Your task to perform on an android device: Go to privacy settings Image 0: 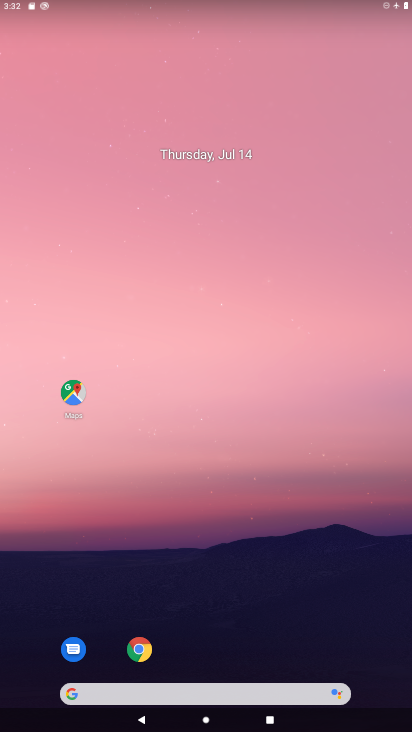
Step 0: drag from (204, 382) to (197, 173)
Your task to perform on an android device: Go to privacy settings Image 1: 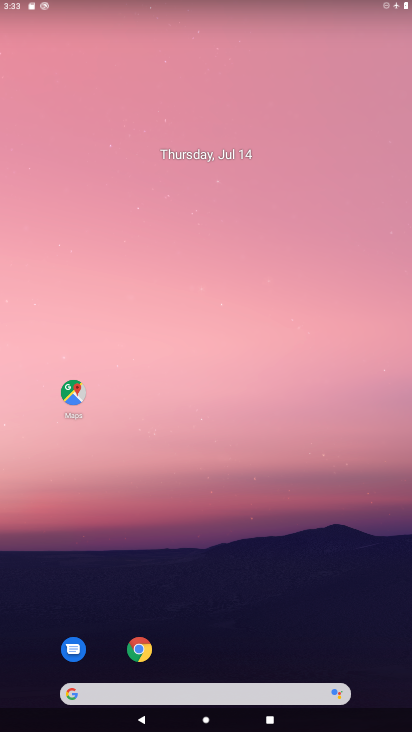
Step 1: drag from (197, 665) to (226, 184)
Your task to perform on an android device: Go to privacy settings Image 2: 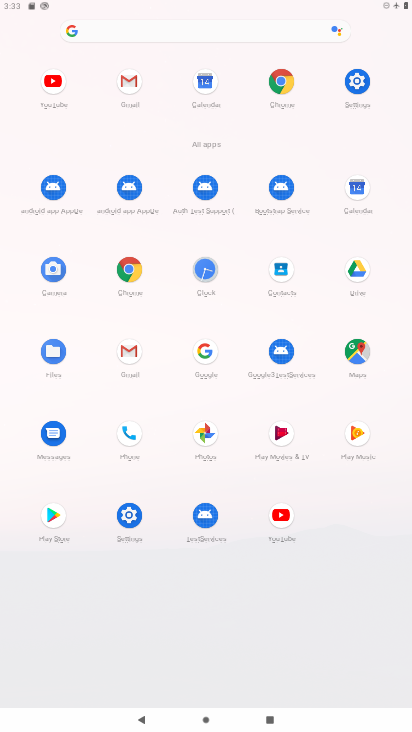
Step 2: click (363, 78)
Your task to perform on an android device: Go to privacy settings Image 3: 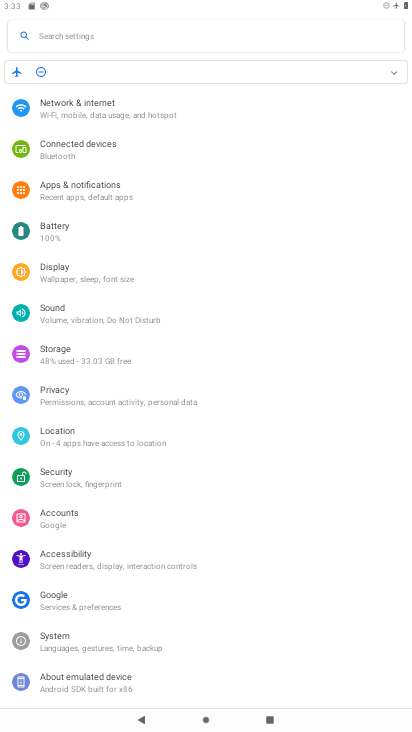
Step 3: click (81, 387)
Your task to perform on an android device: Go to privacy settings Image 4: 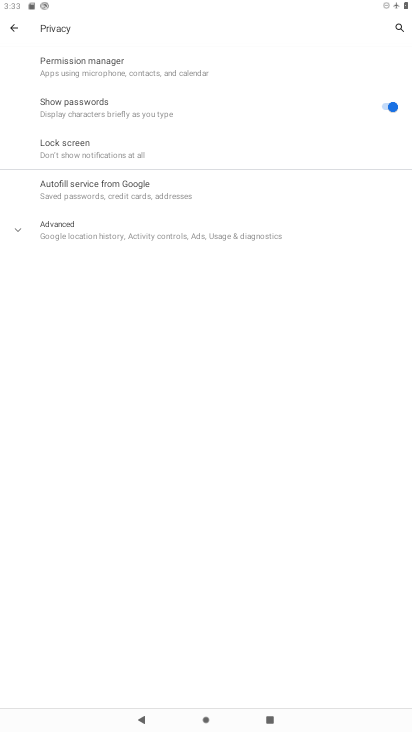
Step 4: task complete